Your task to perform on an android device: turn smart compose on in the gmail app Image 0: 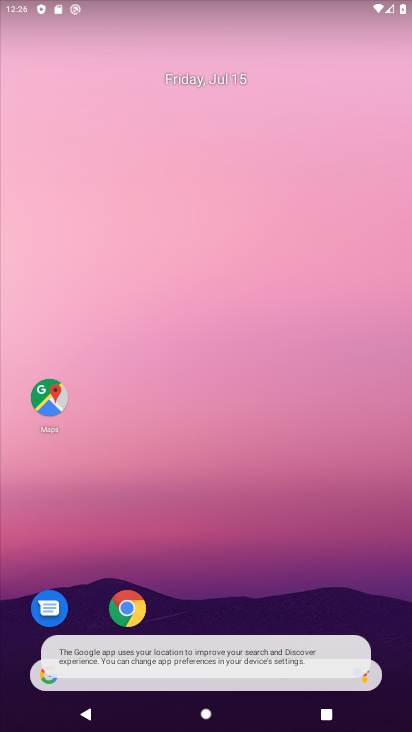
Step 0: drag from (259, 593) to (275, 158)
Your task to perform on an android device: turn smart compose on in the gmail app Image 1: 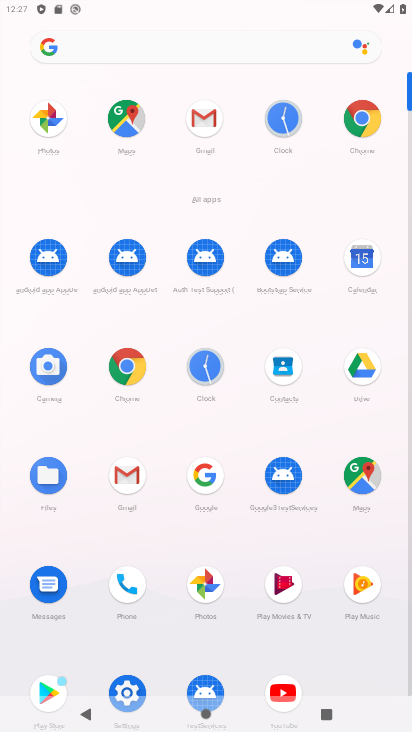
Step 1: click (129, 470)
Your task to perform on an android device: turn smart compose on in the gmail app Image 2: 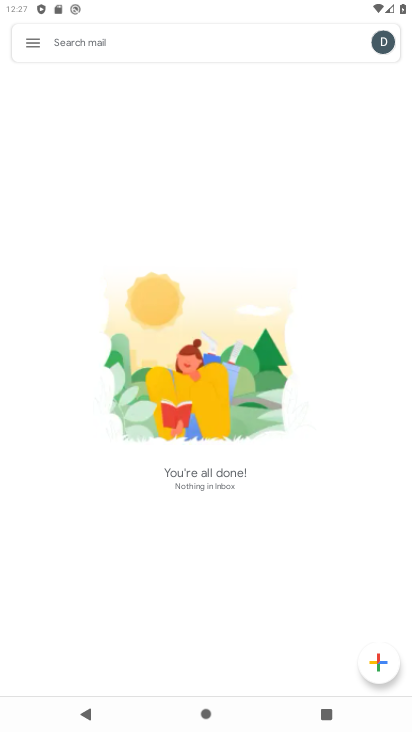
Step 2: click (35, 44)
Your task to perform on an android device: turn smart compose on in the gmail app Image 3: 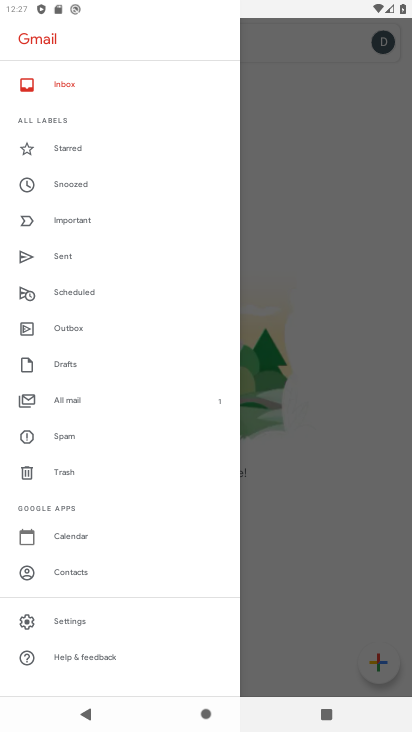
Step 3: click (65, 616)
Your task to perform on an android device: turn smart compose on in the gmail app Image 4: 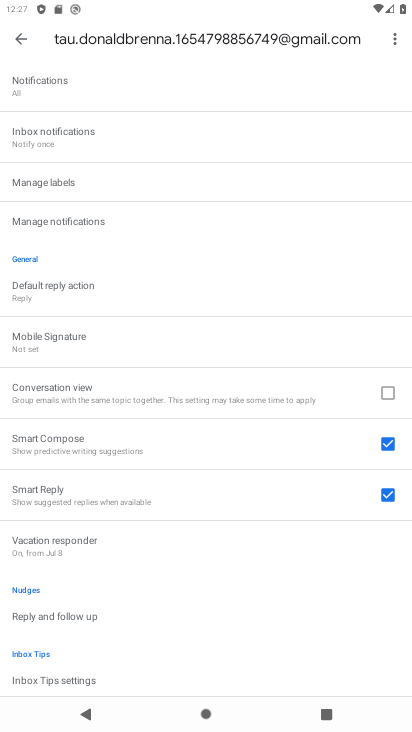
Step 4: task complete